Your task to perform on an android device: turn on improve location accuracy Image 0: 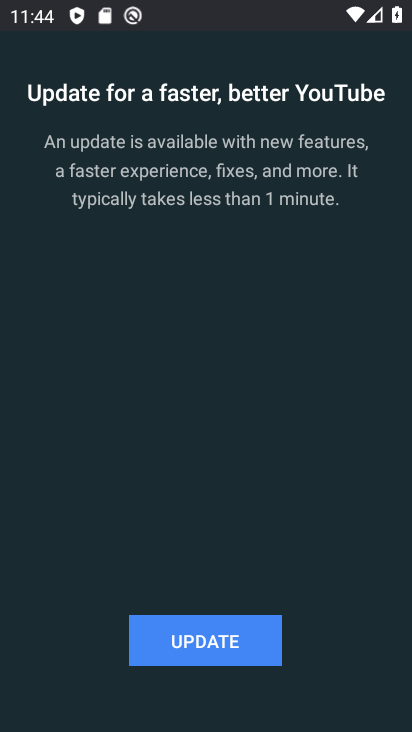
Step 0: press back button
Your task to perform on an android device: turn on improve location accuracy Image 1: 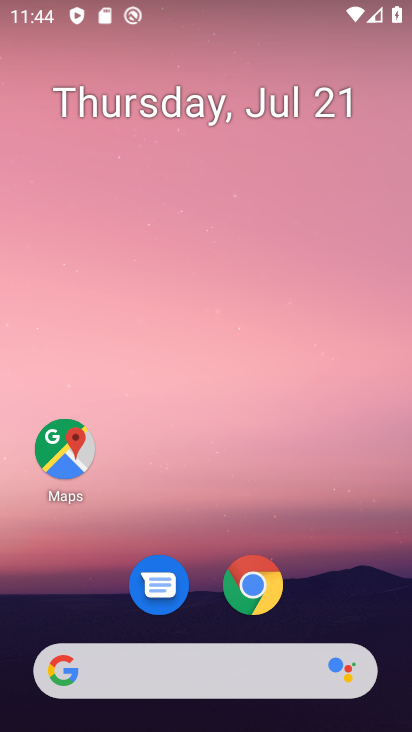
Step 1: drag from (201, 679) to (250, 125)
Your task to perform on an android device: turn on improve location accuracy Image 2: 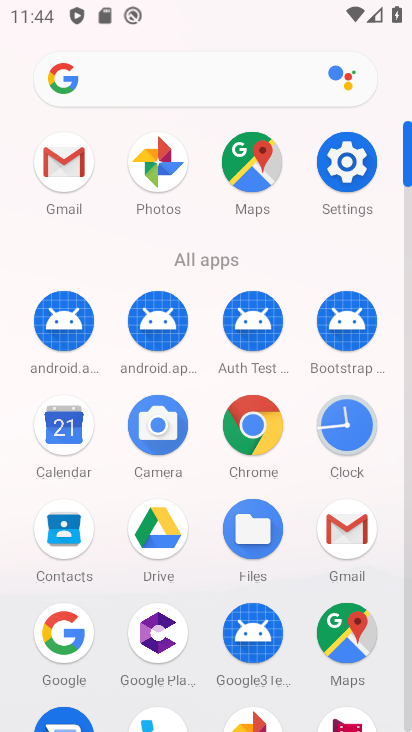
Step 2: click (338, 169)
Your task to perform on an android device: turn on improve location accuracy Image 3: 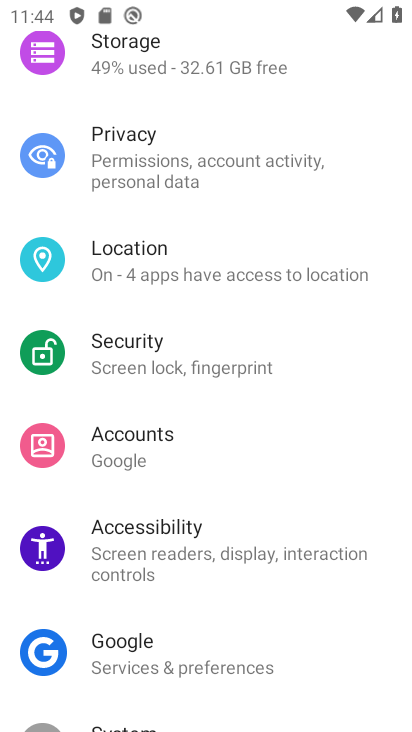
Step 3: click (146, 264)
Your task to perform on an android device: turn on improve location accuracy Image 4: 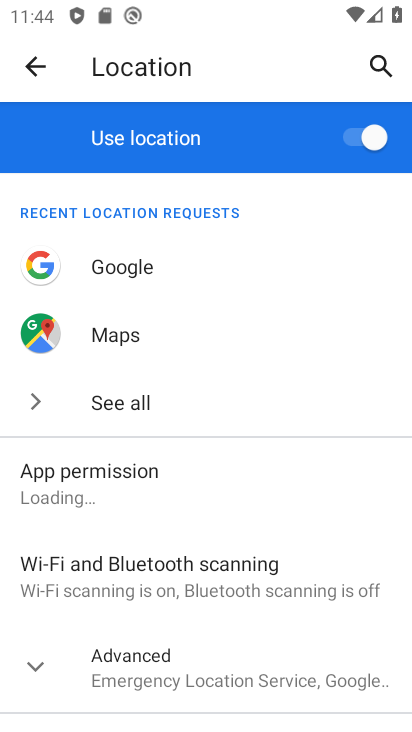
Step 4: drag from (267, 516) to (347, 256)
Your task to perform on an android device: turn on improve location accuracy Image 5: 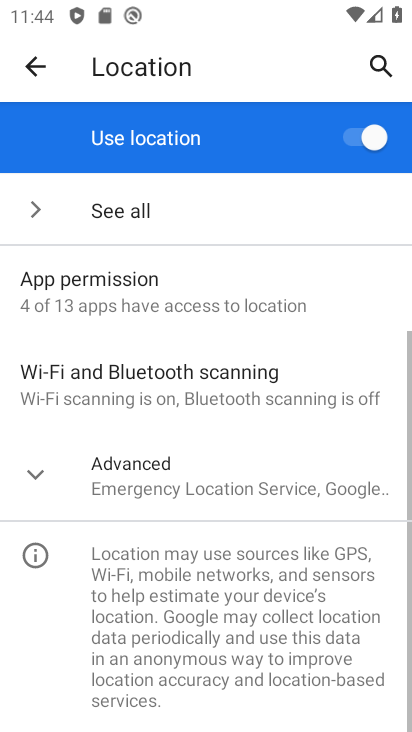
Step 5: click (140, 471)
Your task to perform on an android device: turn on improve location accuracy Image 6: 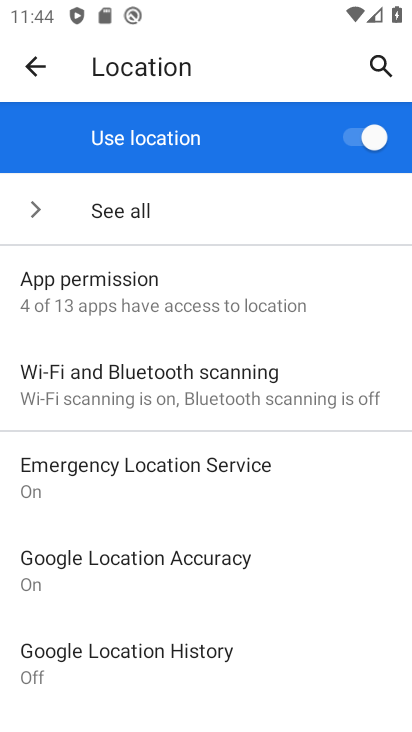
Step 6: click (166, 560)
Your task to perform on an android device: turn on improve location accuracy Image 7: 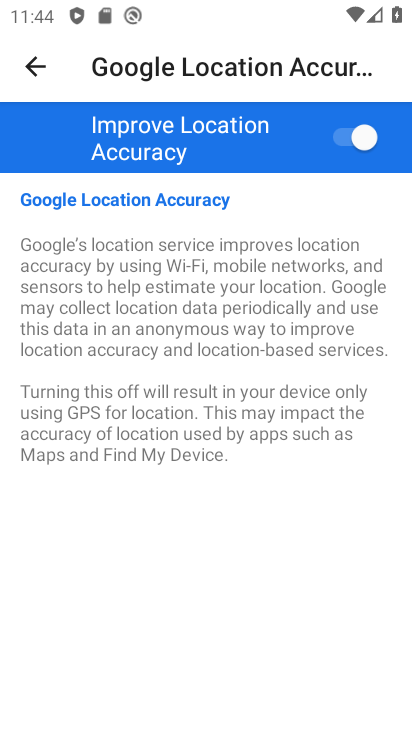
Step 7: task complete